Your task to perform on an android device: Go to battery settings Image 0: 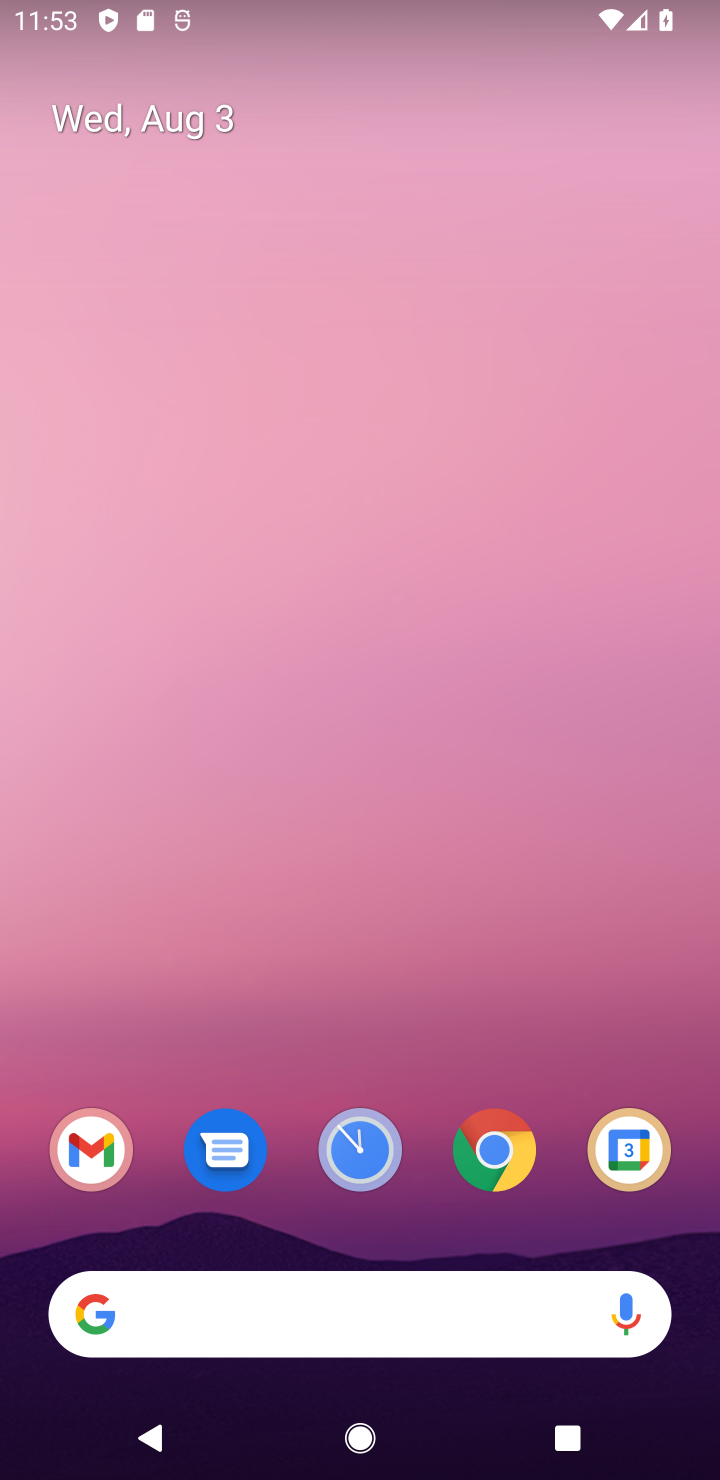
Step 0: press home button
Your task to perform on an android device: Go to battery settings Image 1: 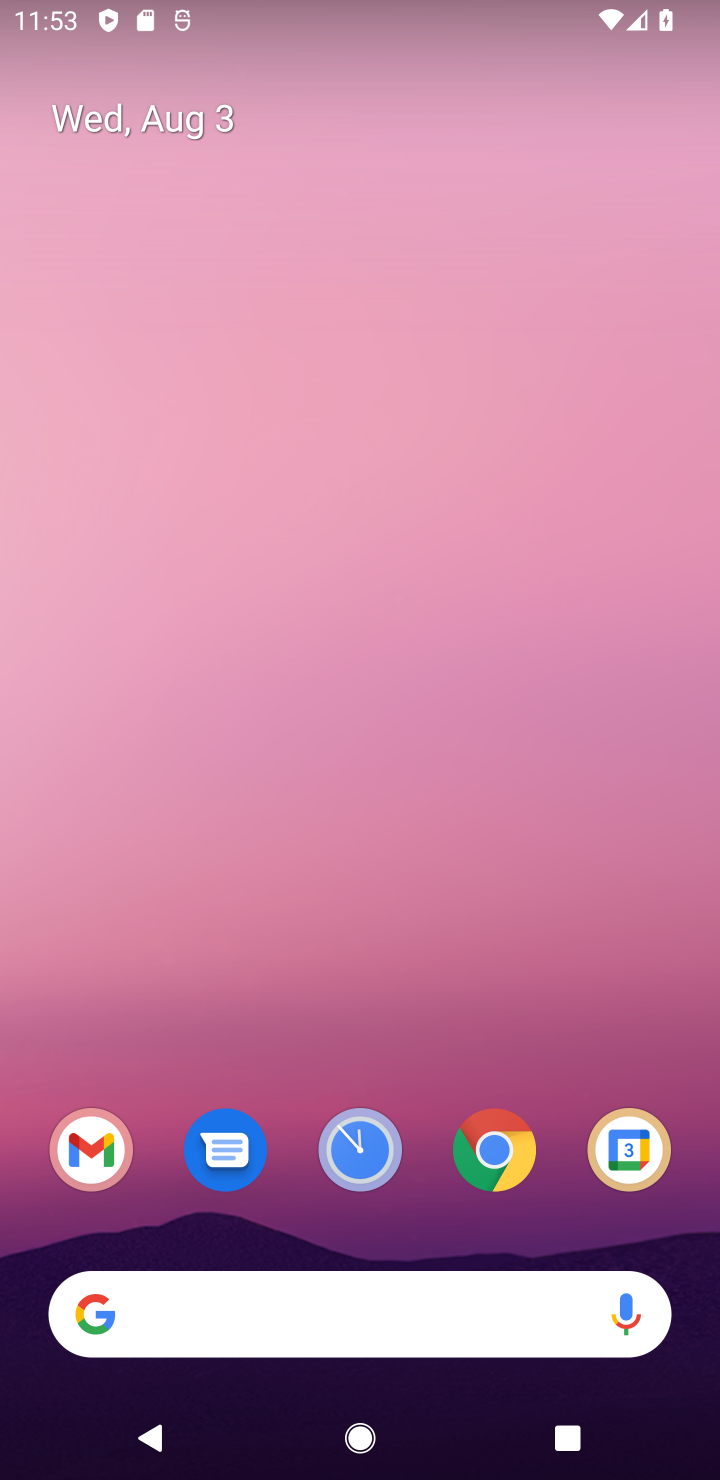
Step 1: drag from (542, 1065) to (548, 392)
Your task to perform on an android device: Go to battery settings Image 2: 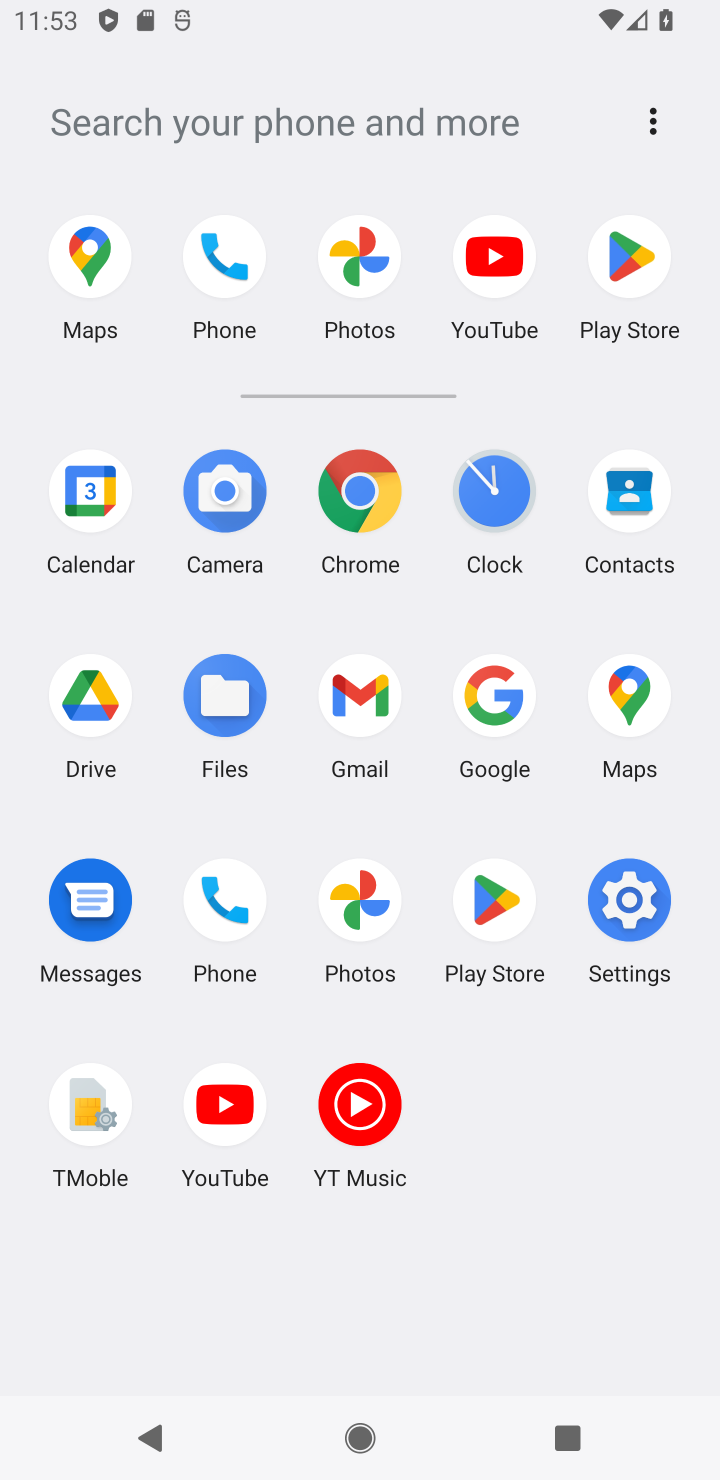
Step 2: click (636, 900)
Your task to perform on an android device: Go to battery settings Image 3: 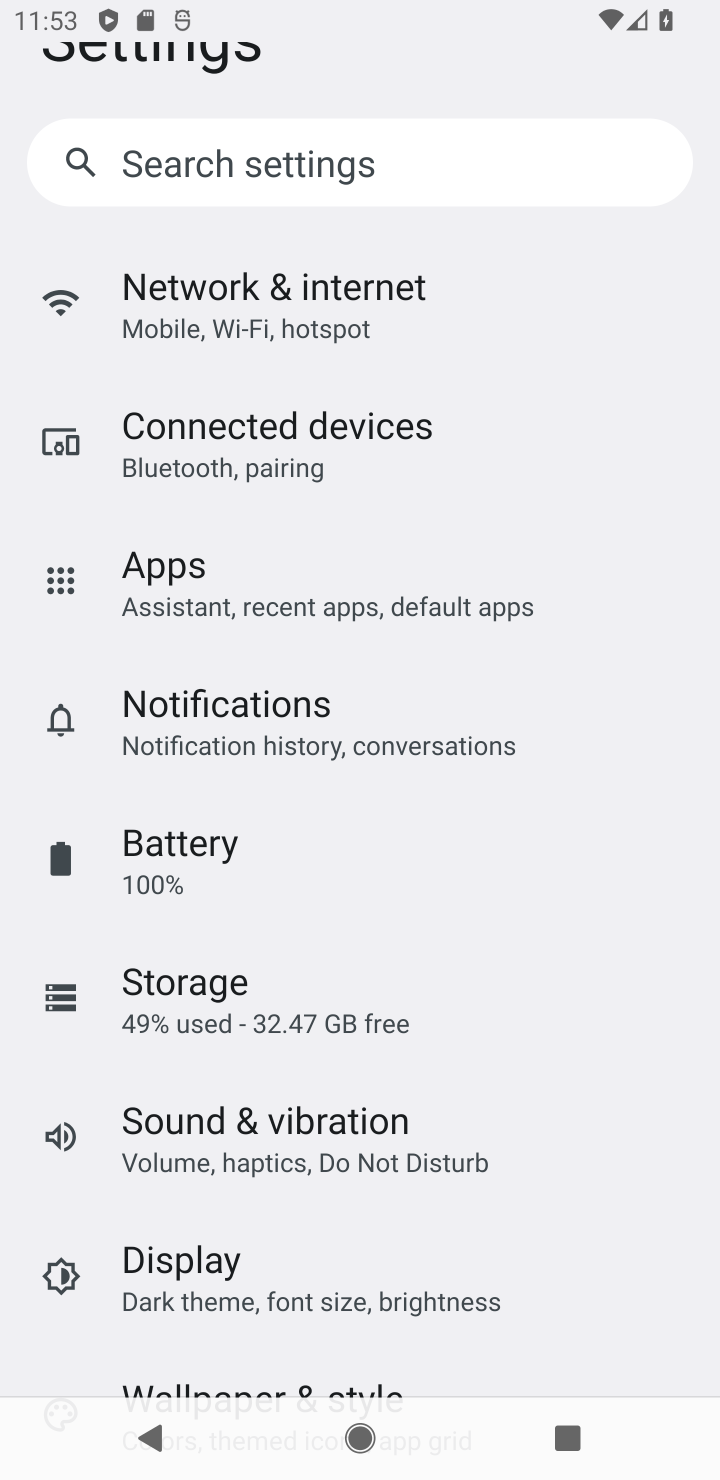
Step 3: drag from (608, 1165) to (637, 874)
Your task to perform on an android device: Go to battery settings Image 4: 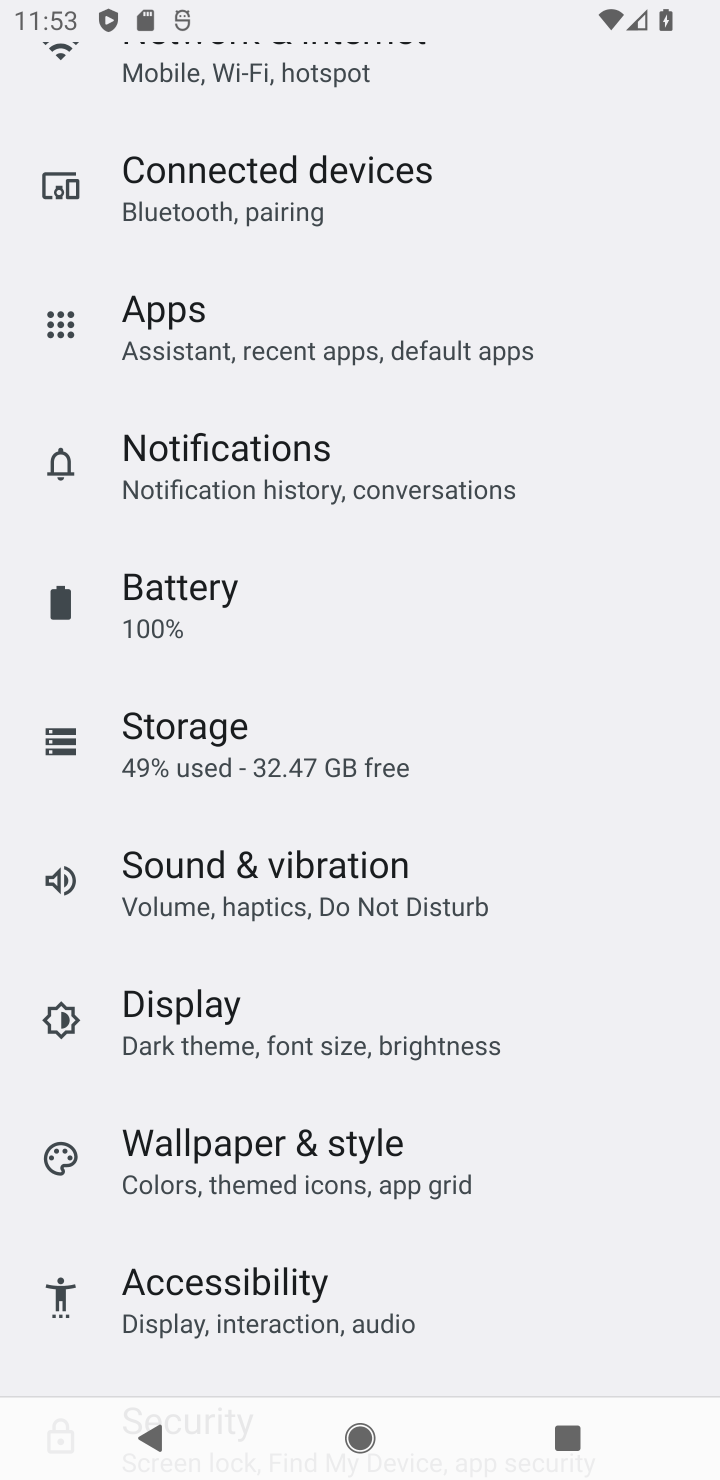
Step 4: drag from (568, 1086) to (587, 870)
Your task to perform on an android device: Go to battery settings Image 5: 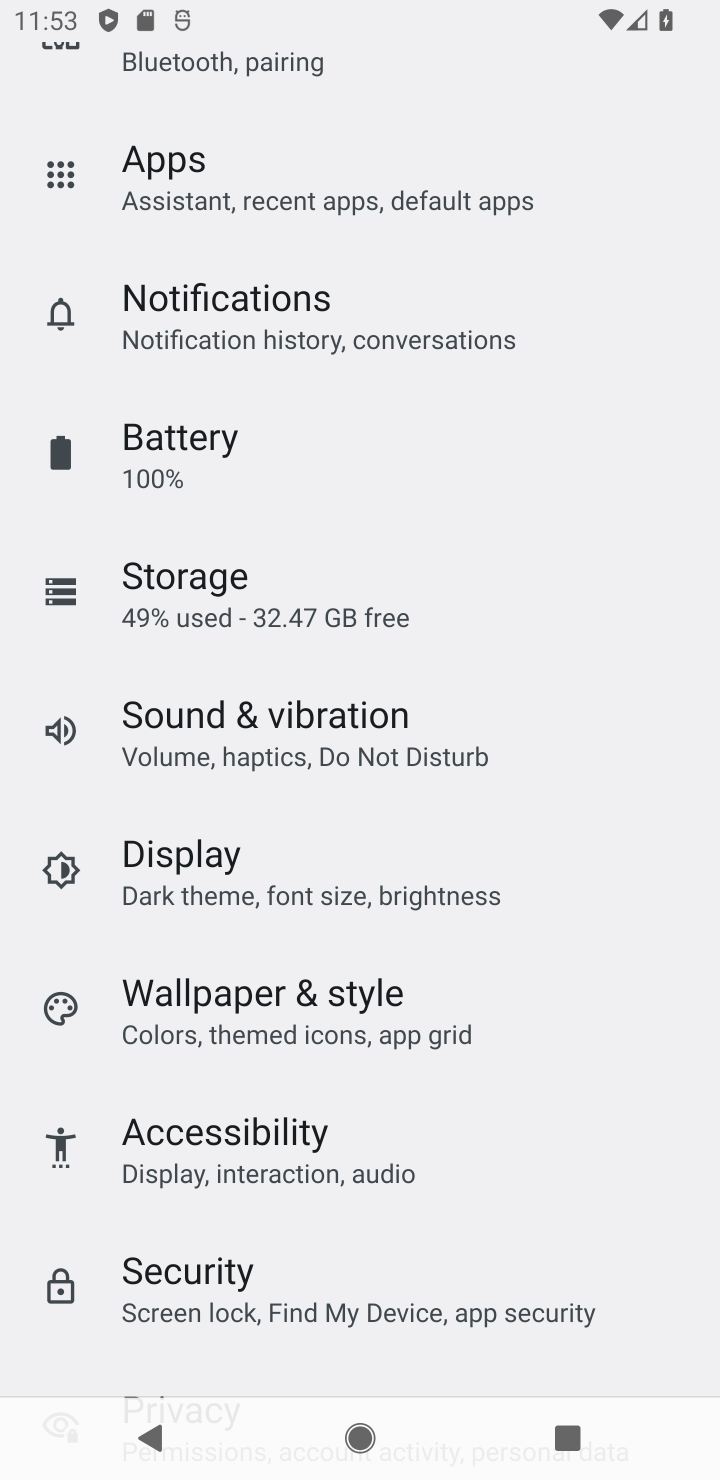
Step 5: drag from (564, 1129) to (579, 862)
Your task to perform on an android device: Go to battery settings Image 6: 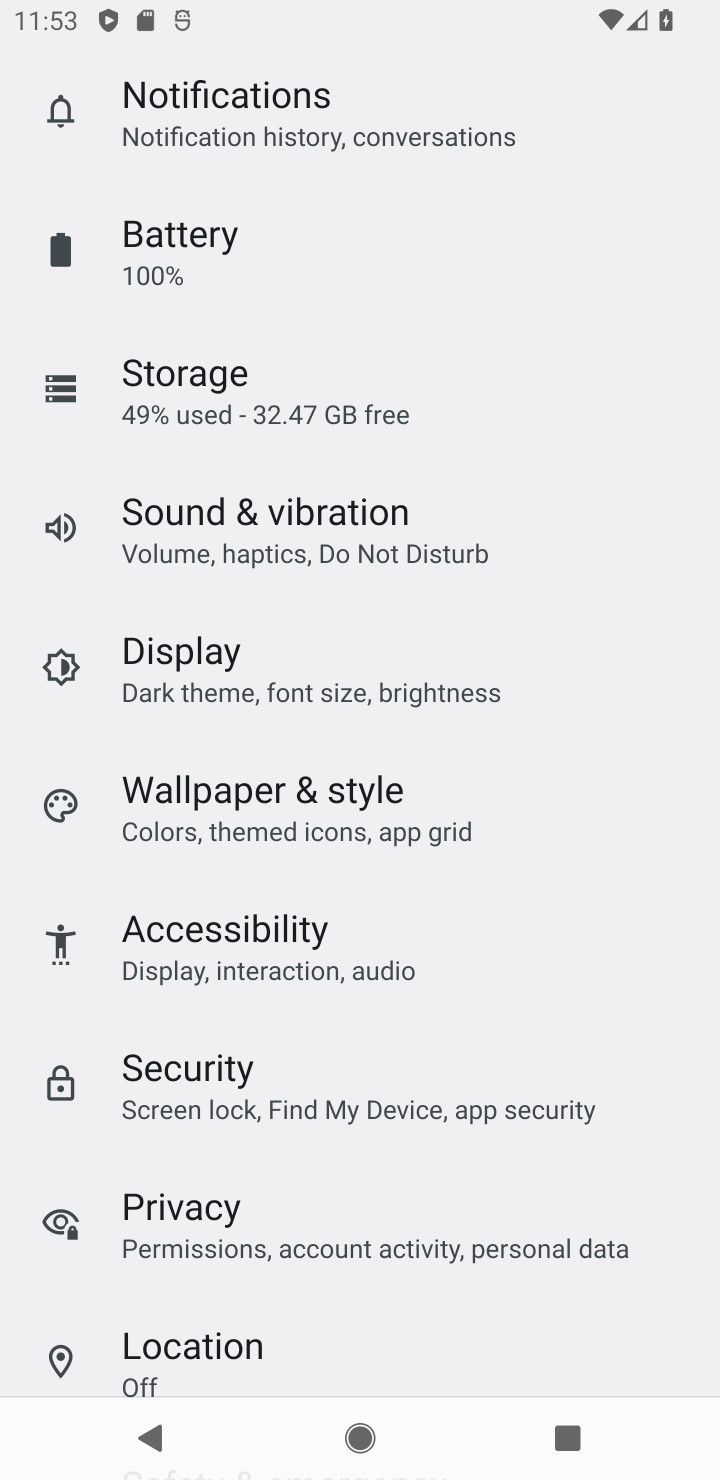
Step 6: drag from (590, 1171) to (609, 833)
Your task to perform on an android device: Go to battery settings Image 7: 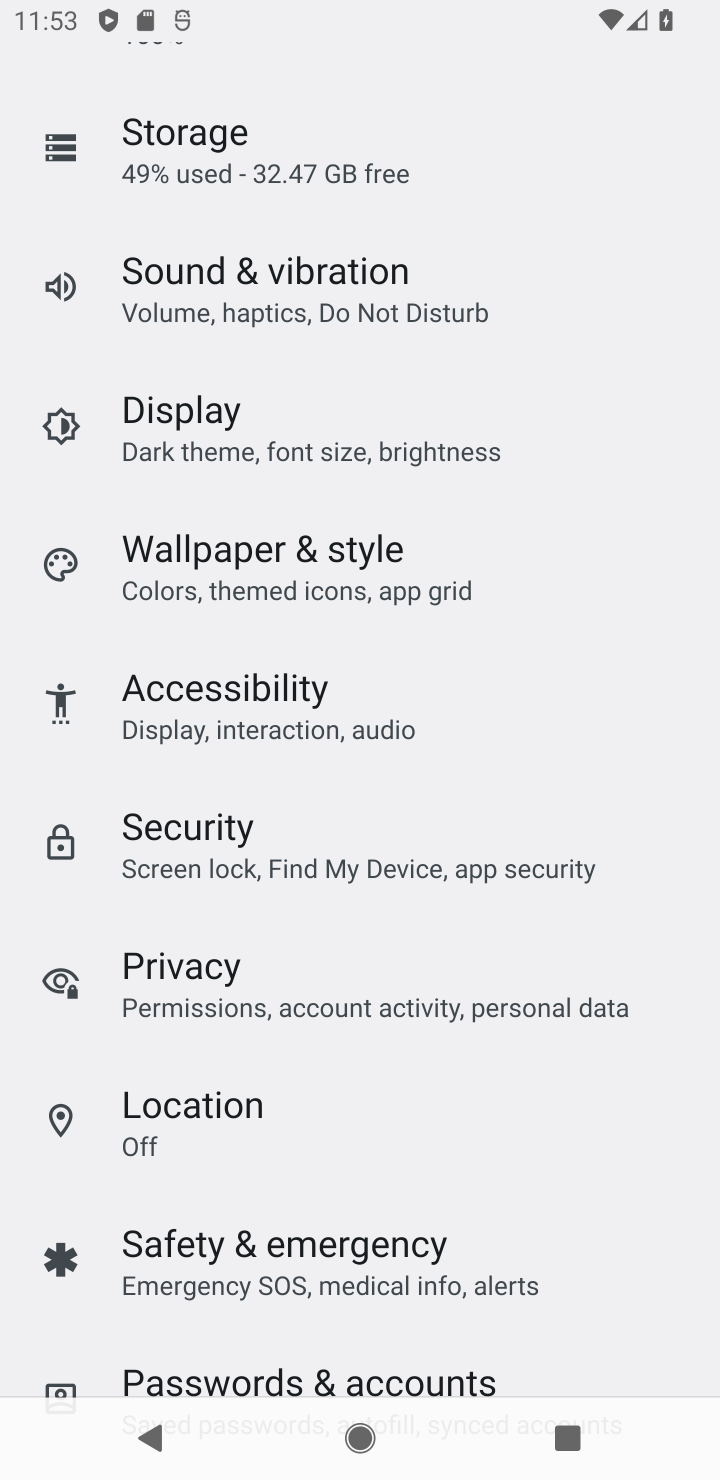
Step 7: drag from (610, 1134) to (621, 771)
Your task to perform on an android device: Go to battery settings Image 8: 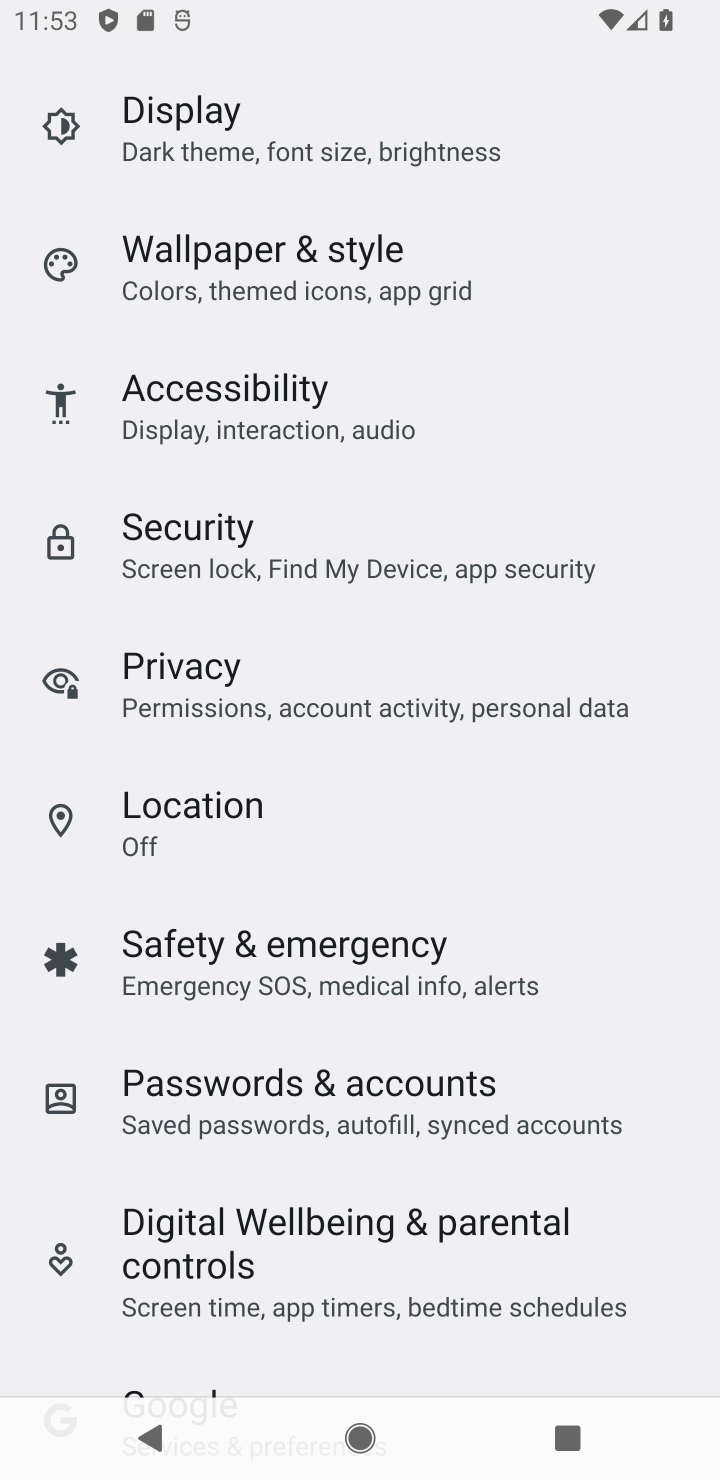
Step 8: drag from (630, 1189) to (614, 860)
Your task to perform on an android device: Go to battery settings Image 9: 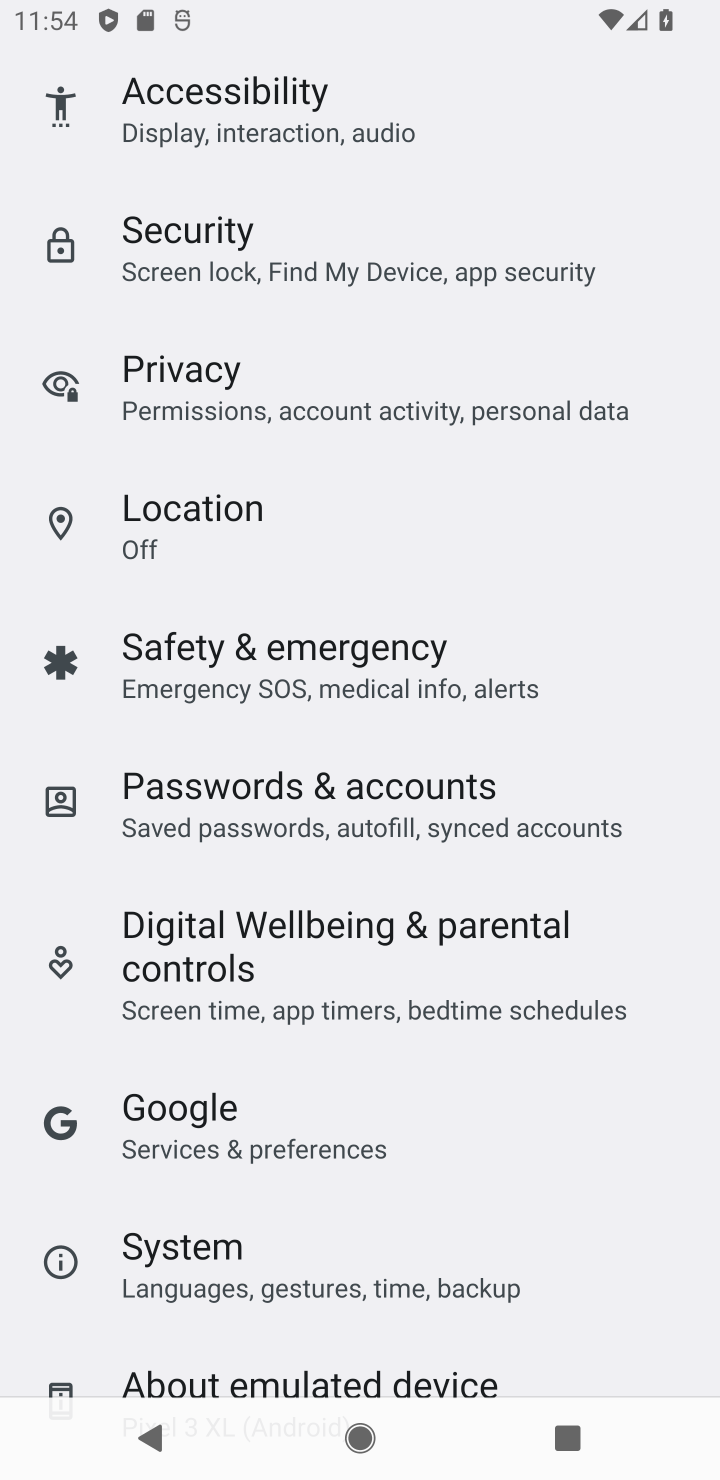
Step 9: drag from (625, 580) to (625, 848)
Your task to perform on an android device: Go to battery settings Image 10: 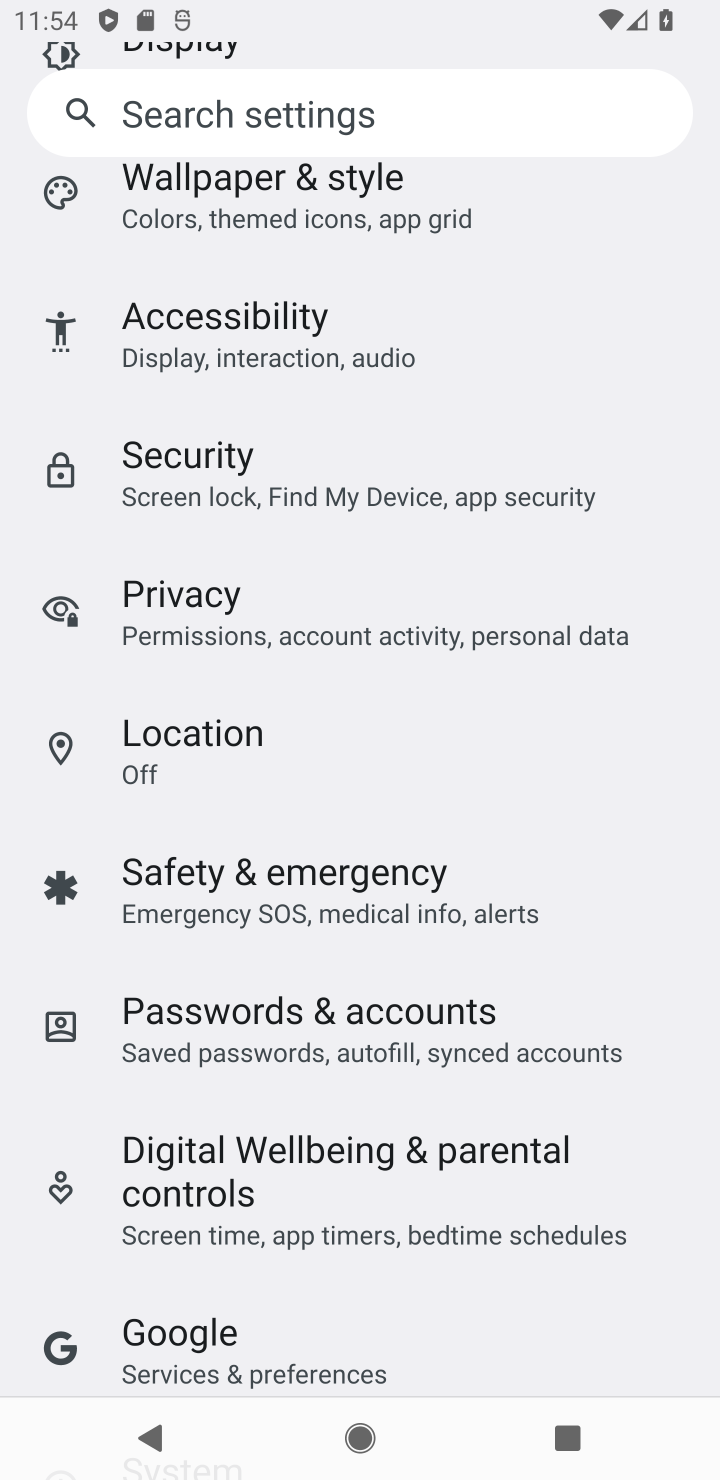
Step 10: drag from (612, 415) to (608, 720)
Your task to perform on an android device: Go to battery settings Image 11: 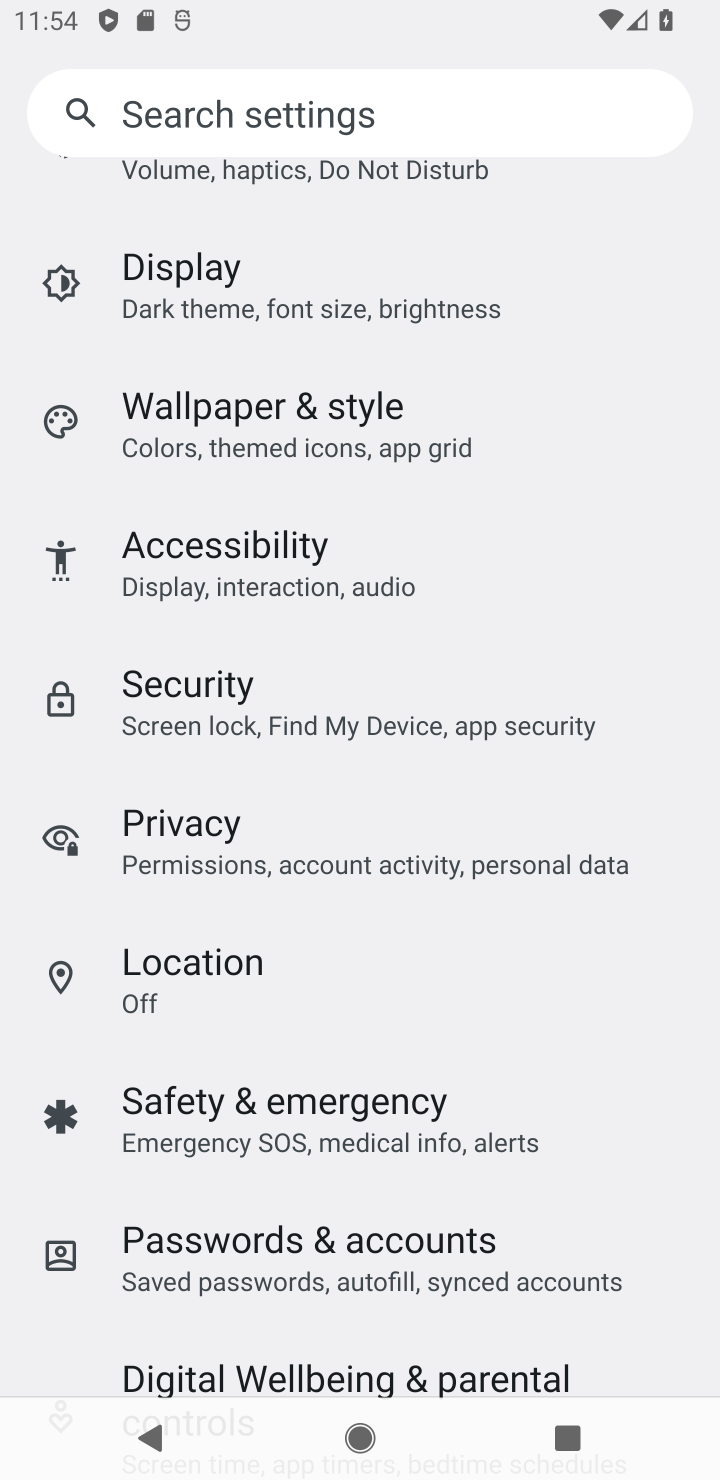
Step 11: drag from (622, 396) to (594, 905)
Your task to perform on an android device: Go to battery settings Image 12: 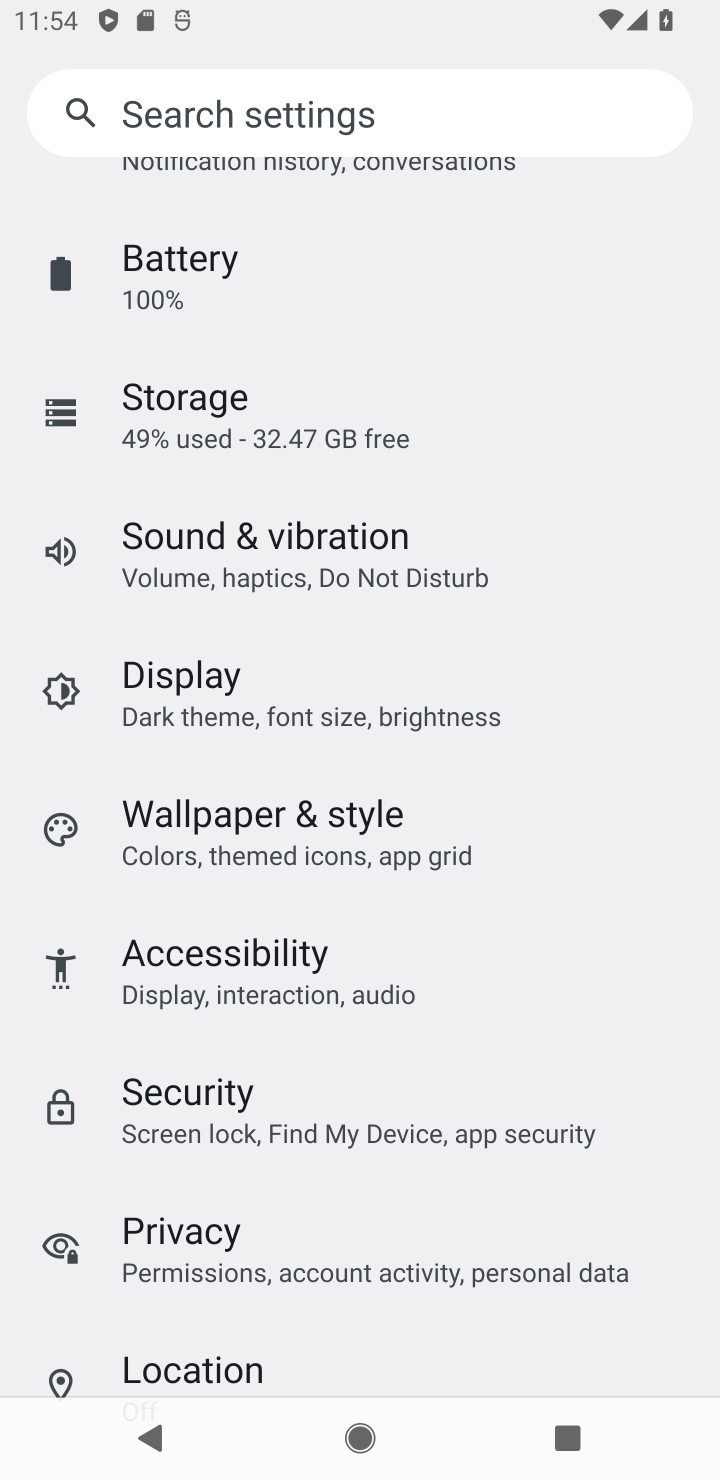
Step 12: drag from (609, 344) to (600, 852)
Your task to perform on an android device: Go to battery settings Image 13: 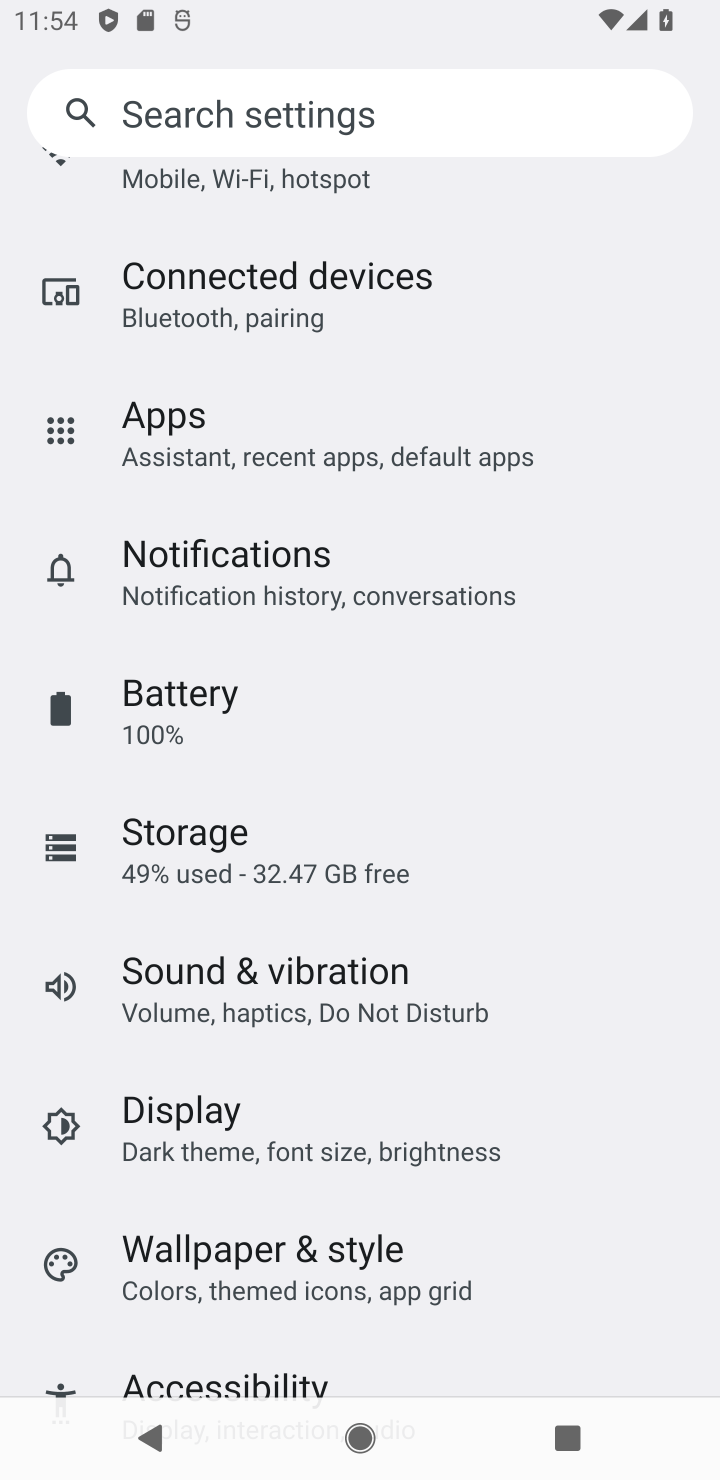
Step 13: click (250, 723)
Your task to perform on an android device: Go to battery settings Image 14: 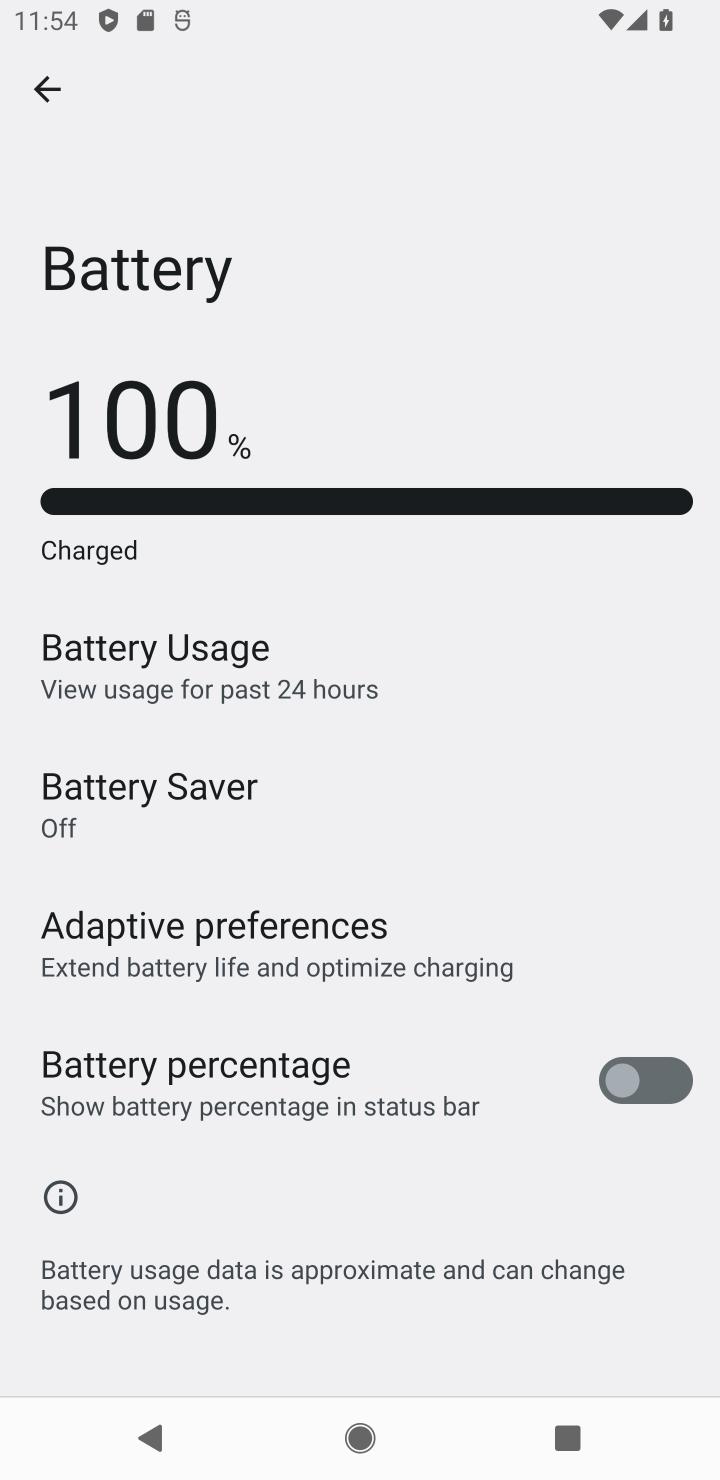
Step 14: task complete